Your task to perform on an android device: Open calendar and show me the first week of next month Image 0: 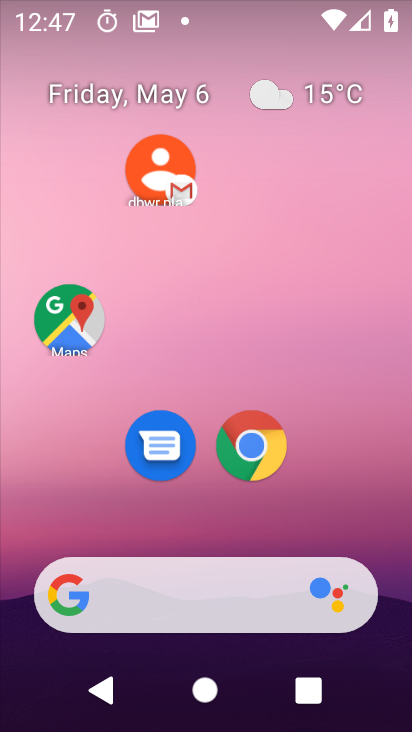
Step 0: drag from (375, 561) to (211, 112)
Your task to perform on an android device: Open calendar and show me the first week of next month Image 1: 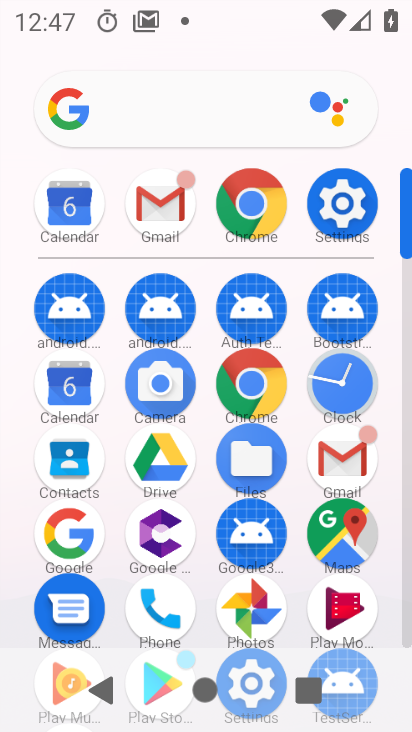
Step 1: click (67, 384)
Your task to perform on an android device: Open calendar and show me the first week of next month Image 2: 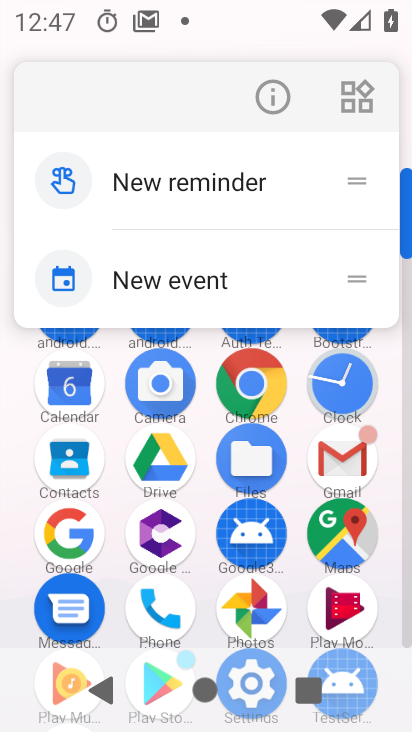
Step 2: click (69, 384)
Your task to perform on an android device: Open calendar and show me the first week of next month Image 3: 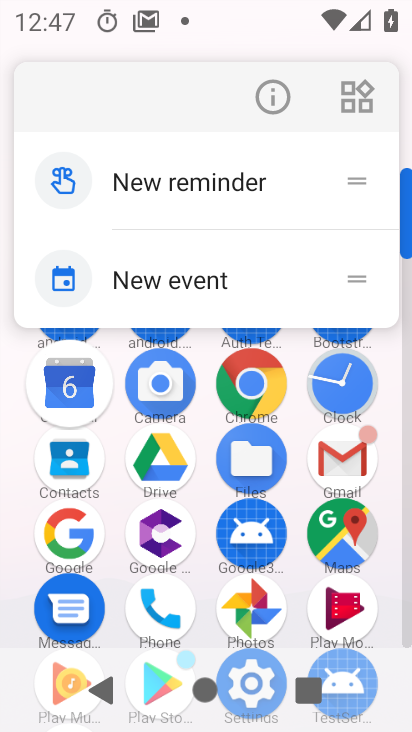
Step 3: click (69, 394)
Your task to perform on an android device: Open calendar and show me the first week of next month Image 4: 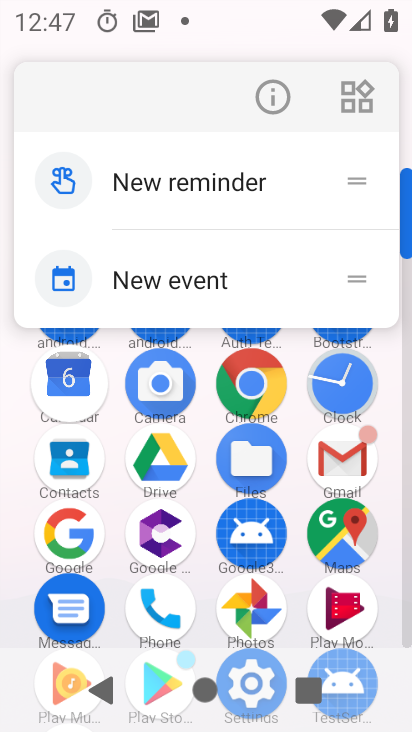
Step 4: click (69, 394)
Your task to perform on an android device: Open calendar and show me the first week of next month Image 5: 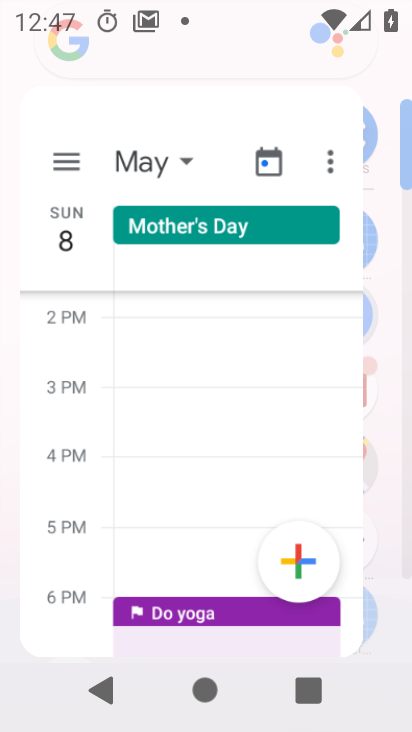
Step 5: click (69, 394)
Your task to perform on an android device: Open calendar and show me the first week of next month Image 6: 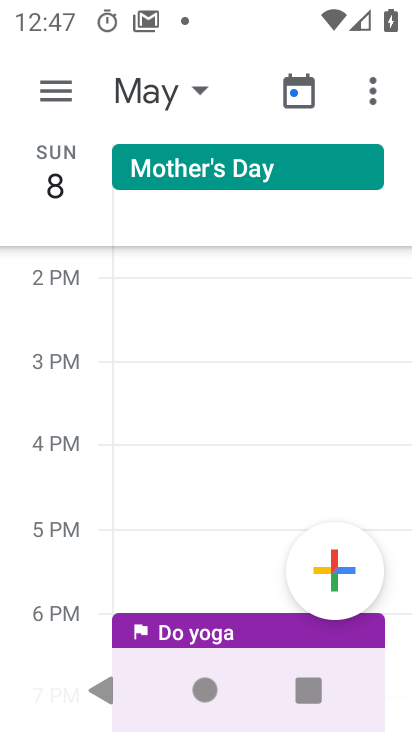
Step 6: click (199, 90)
Your task to perform on an android device: Open calendar and show me the first week of next month Image 7: 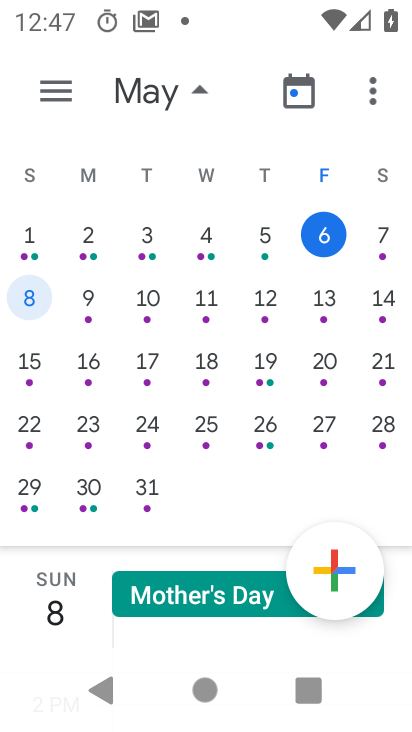
Step 7: drag from (7, 240) to (0, 306)
Your task to perform on an android device: Open calendar and show me the first week of next month Image 8: 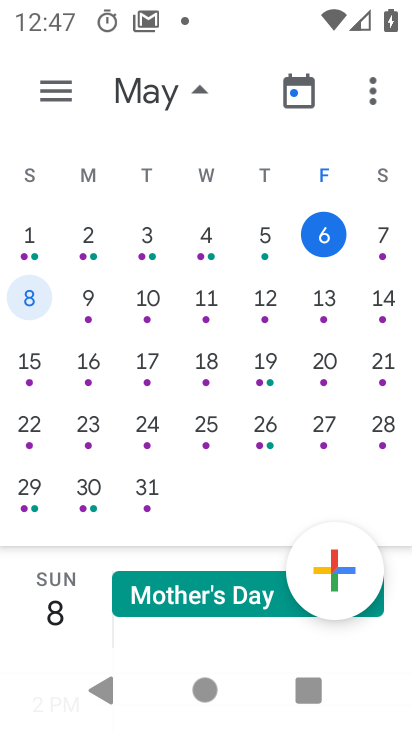
Step 8: drag from (311, 359) to (18, 354)
Your task to perform on an android device: Open calendar and show me the first week of next month Image 9: 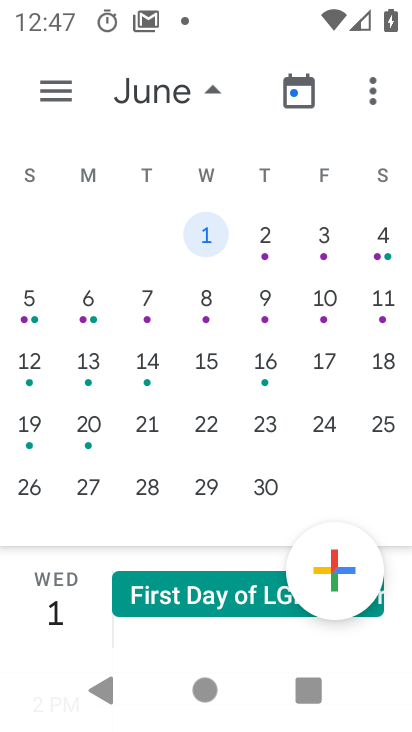
Step 9: drag from (296, 346) to (19, 317)
Your task to perform on an android device: Open calendar and show me the first week of next month Image 10: 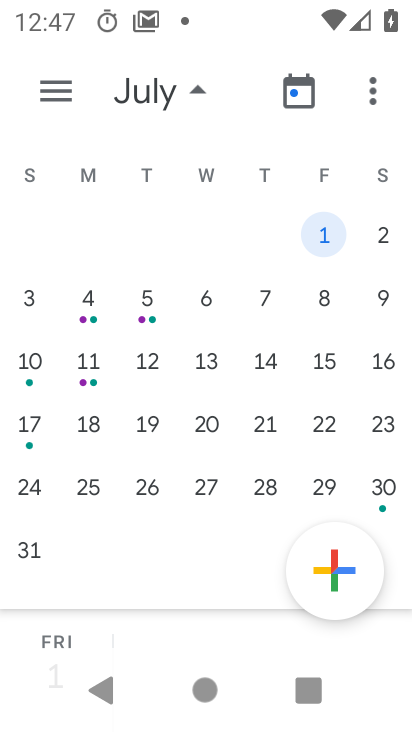
Step 10: drag from (107, 361) to (269, 362)
Your task to perform on an android device: Open calendar and show me the first week of next month Image 11: 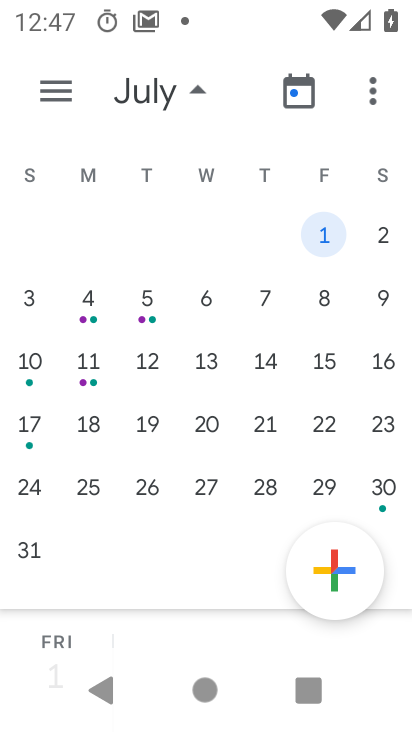
Step 11: drag from (95, 412) to (403, 371)
Your task to perform on an android device: Open calendar and show me the first week of next month Image 12: 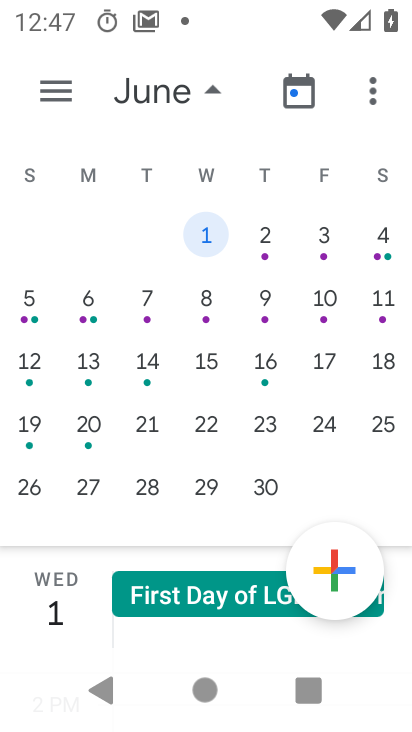
Step 12: click (403, 381)
Your task to perform on an android device: Open calendar and show me the first week of next month Image 13: 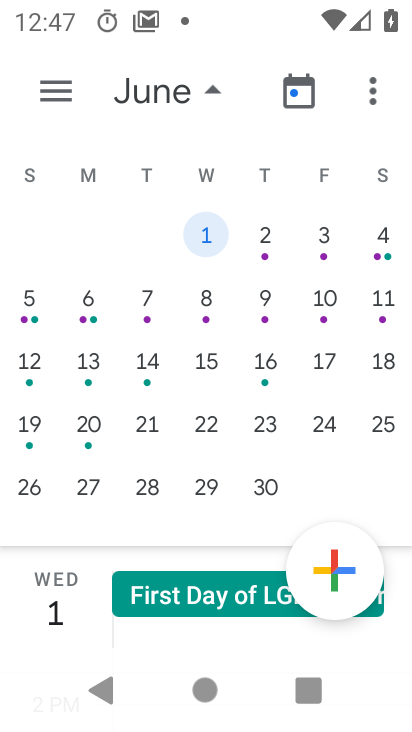
Step 13: click (204, 295)
Your task to perform on an android device: Open calendar and show me the first week of next month Image 14: 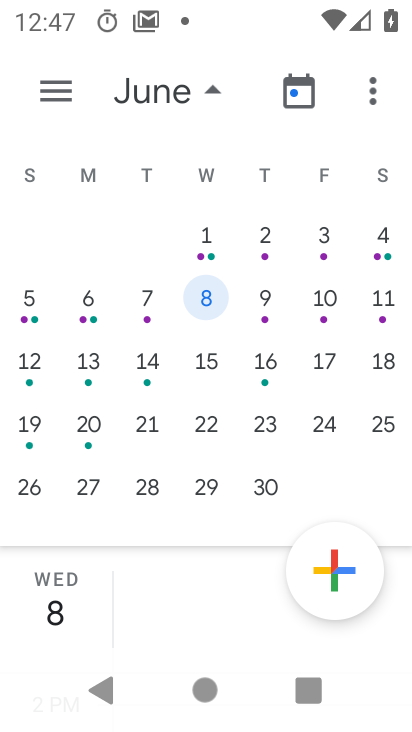
Step 14: task complete